Your task to perform on an android device: Go to sound settings Image 0: 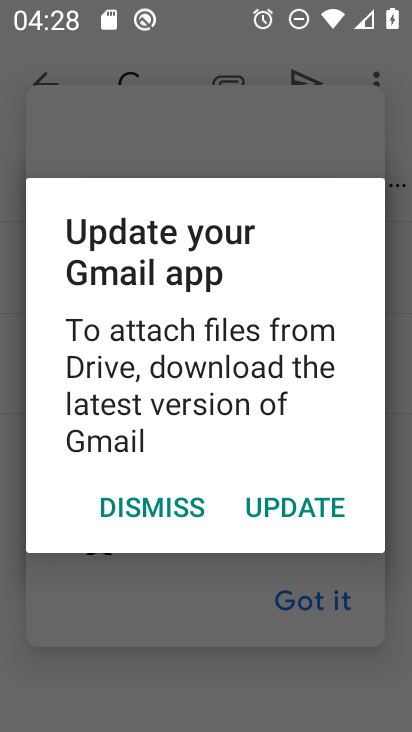
Step 0: press home button
Your task to perform on an android device: Go to sound settings Image 1: 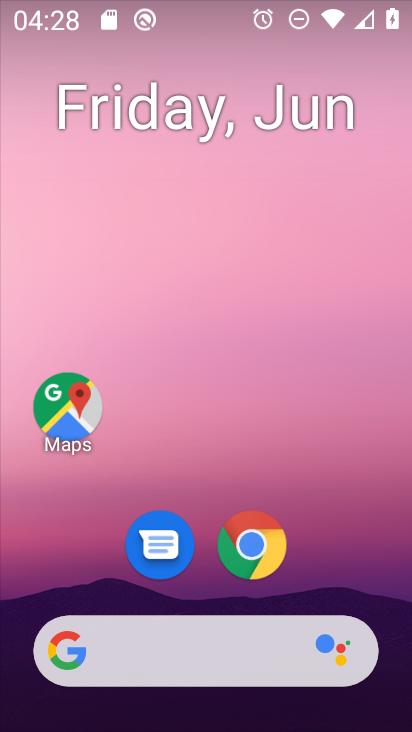
Step 1: drag from (363, 569) to (0, 142)
Your task to perform on an android device: Go to sound settings Image 2: 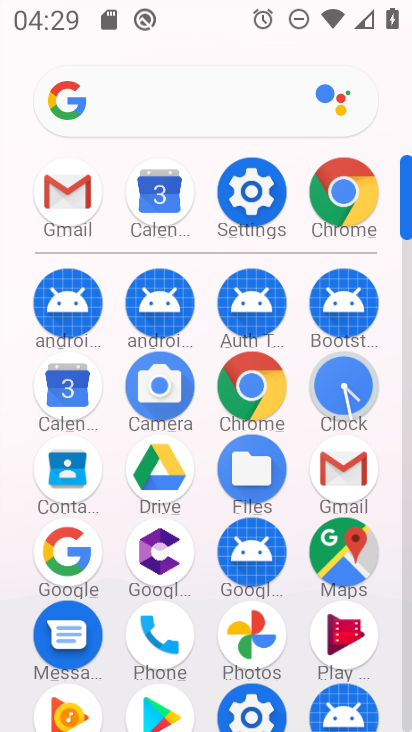
Step 2: click (242, 207)
Your task to perform on an android device: Go to sound settings Image 3: 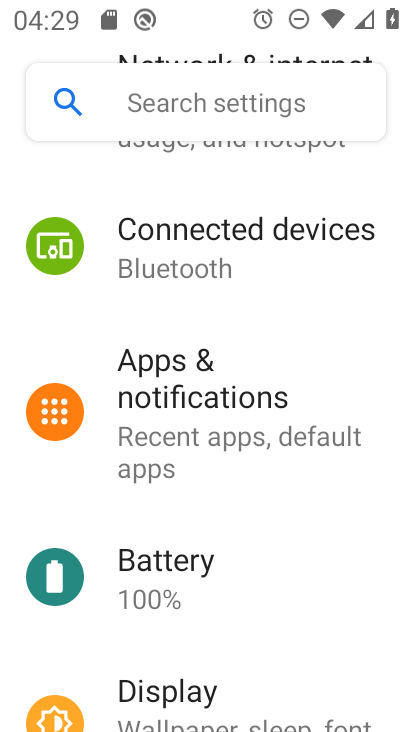
Step 3: drag from (203, 610) to (201, 146)
Your task to perform on an android device: Go to sound settings Image 4: 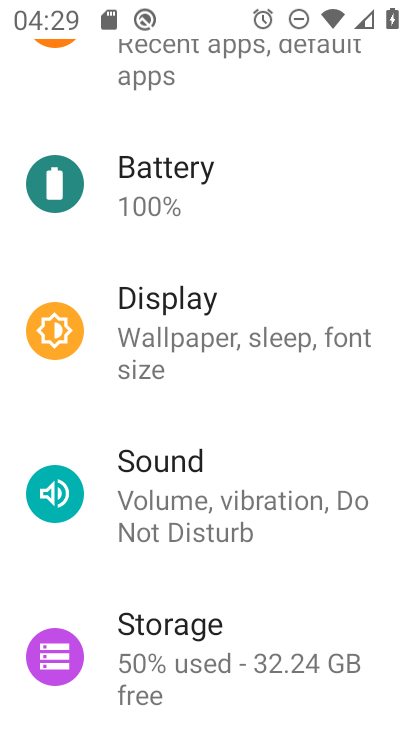
Step 4: click (208, 497)
Your task to perform on an android device: Go to sound settings Image 5: 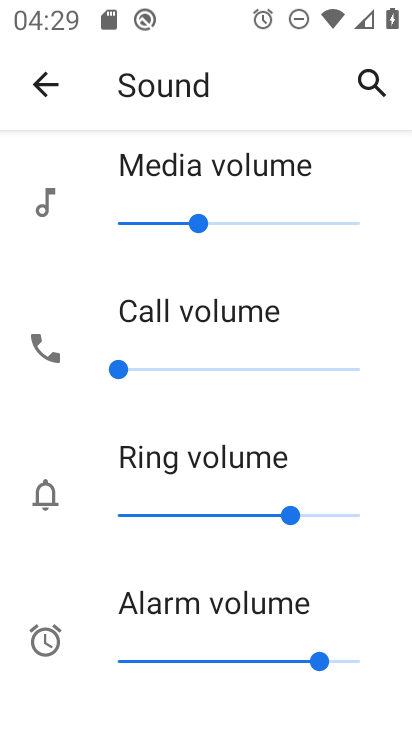
Step 5: task complete